Your task to perform on an android device: See recent photos Image 0: 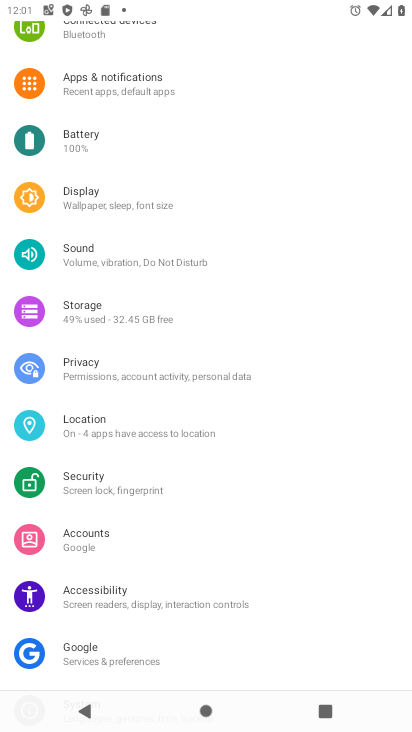
Step 0: press home button
Your task to perform on an android device: See recent photos Image 1: 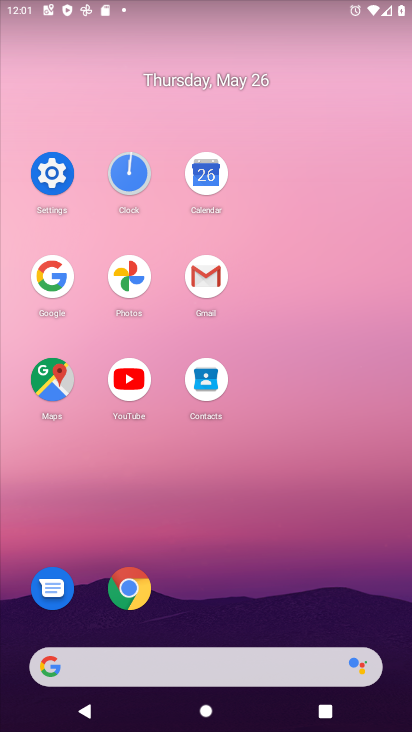
Step 1: click (128, 284)
Your task to perform on an android device: See recent photos Image 2: 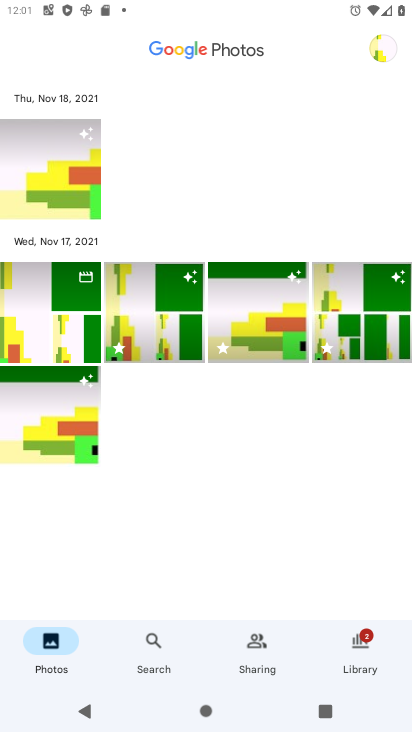
Step 2: task complete